Your task to perform on an android device: turn off notifications settings in the gmail app Image 0: 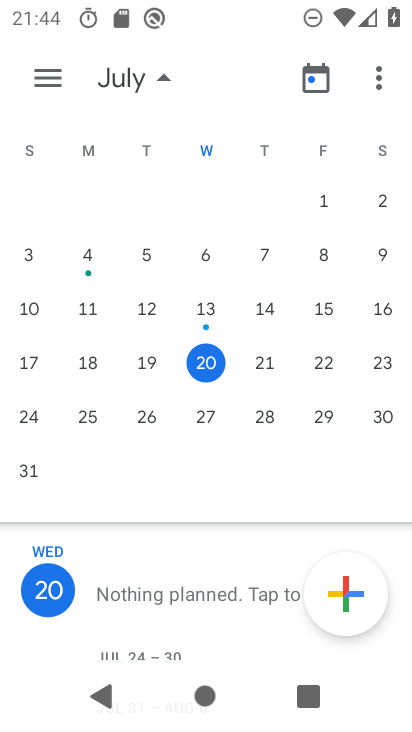
Step 0: press home button
Your task to perform on an android device: turn off notifications settings in the gmail app Image 1: 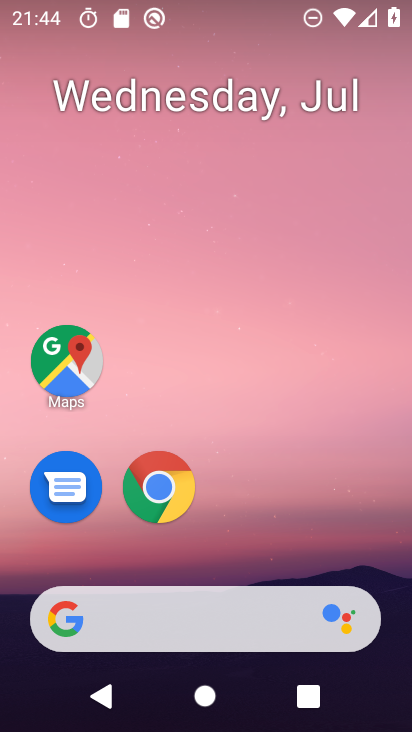
Step 1: drag from (334, 504) to (360, 80)
Your task to perform on an android device: turn off notifications settings in the gmail app Image 2: 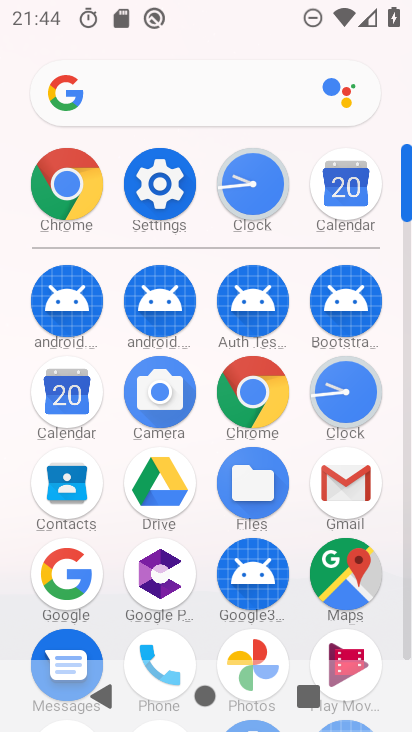
Step 2: click (350, 476)
Your task to perform on an android device: turn off notifications settings in the gmail app Image 3: 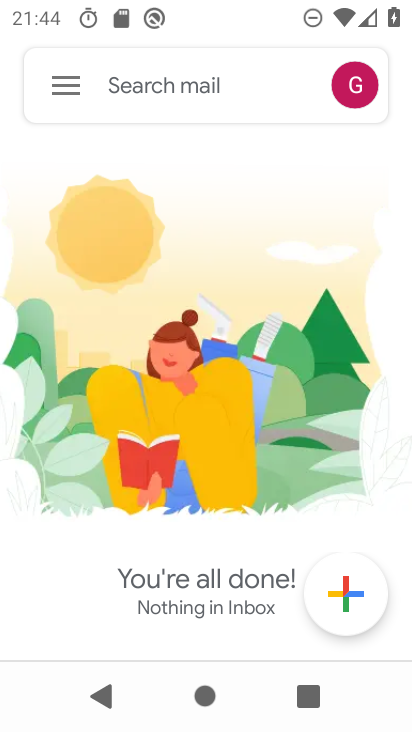
Step 3: click (64, 77)
Your task to perform on an android device: turn off notifications settings in the gmail app Image 4: 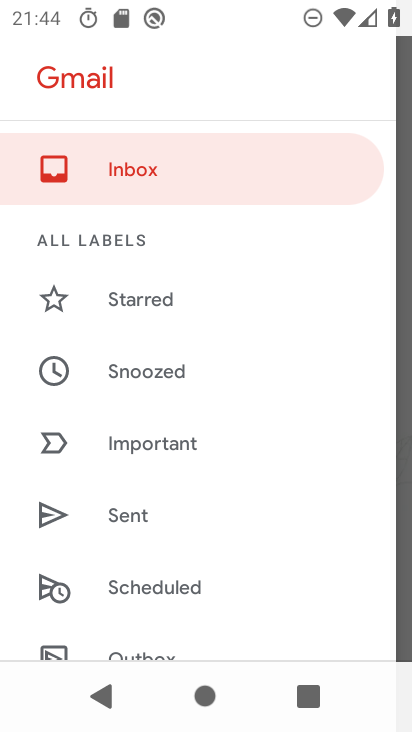
Step 4: drag from (300, 533) to (307, 478)
Your task to perform on an android device: turn off notifications settings in the gmail app Image 5: 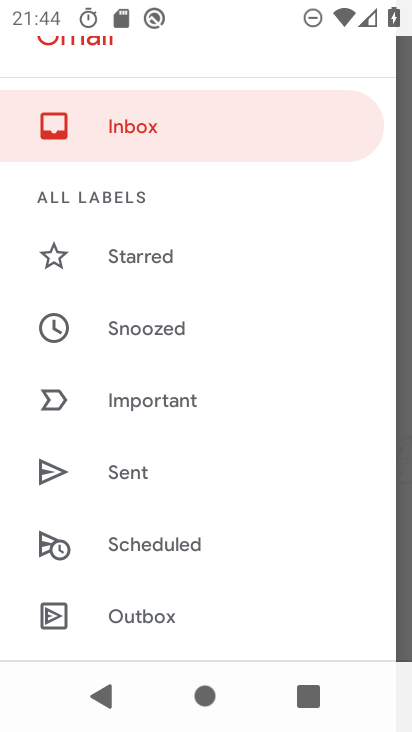
Step 5: drag from (306, 521) to (332, 249)
Your task to perform on an android device: turn off notifications settings in the gmail app Image 6: 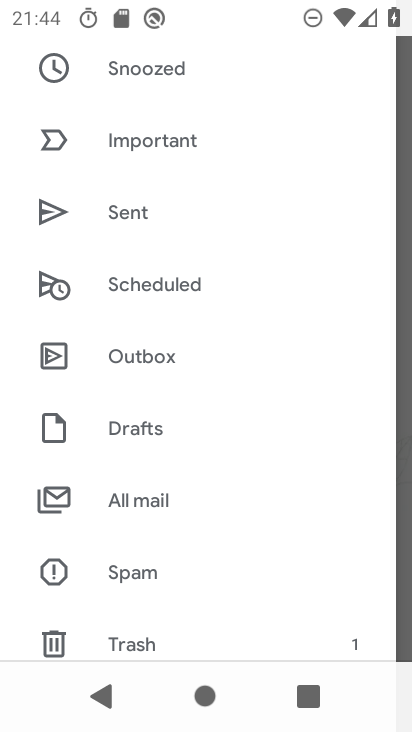
Step 6: drag from (309, 432) to (320, 327)
Your task to perform on an android device: turn off notifications settings in the gmail app Image 7: 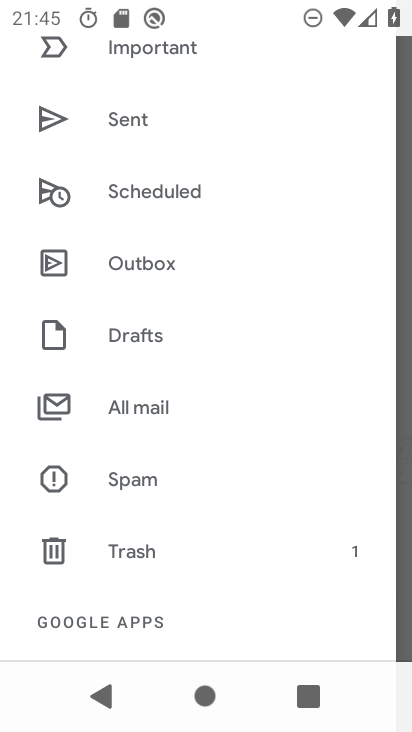
Step 7: drag from (288, 464) to (291, 316)
Your task to perform on an android device: turn off notifications settings in the gmail app Image 8: 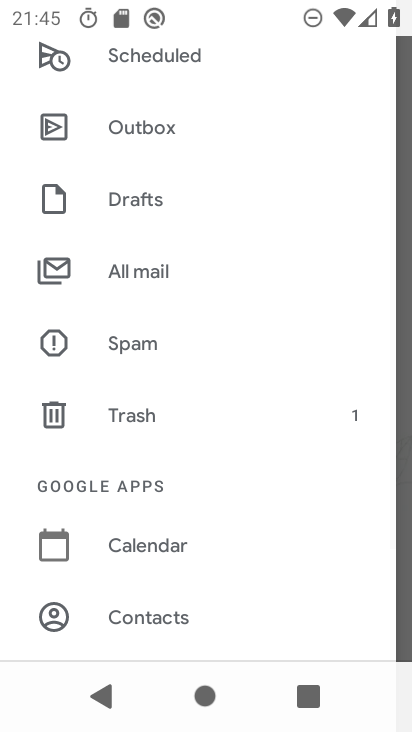
Step 8: drag from (265, 525) to (264, 348)
Your task to perform on an android device: turn off notifications settings in the gmail app Image 9: 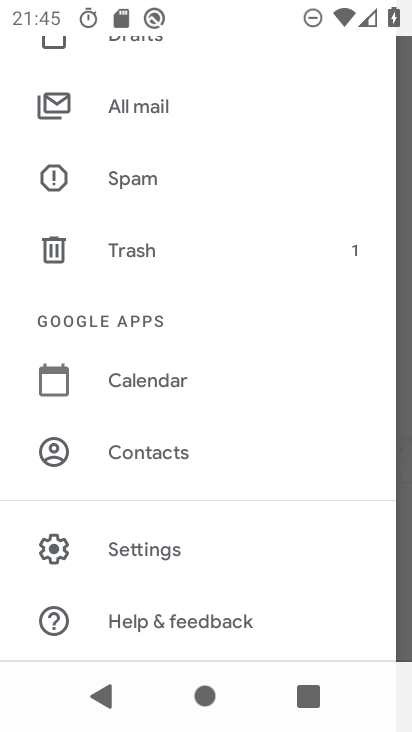
Step 9: click (173, 550)
Your task to perform on an android device: turn off notifications settings in the gmail app Image 10: 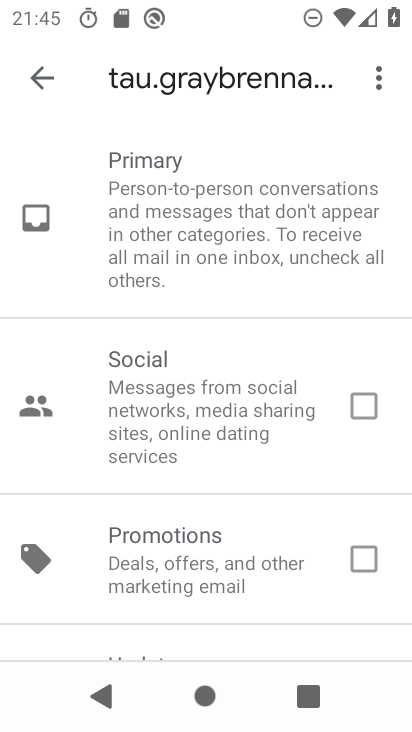
Step 10: press back button
Your task to perform on an android device: turn off notifications settings in the gmail app Image 11: 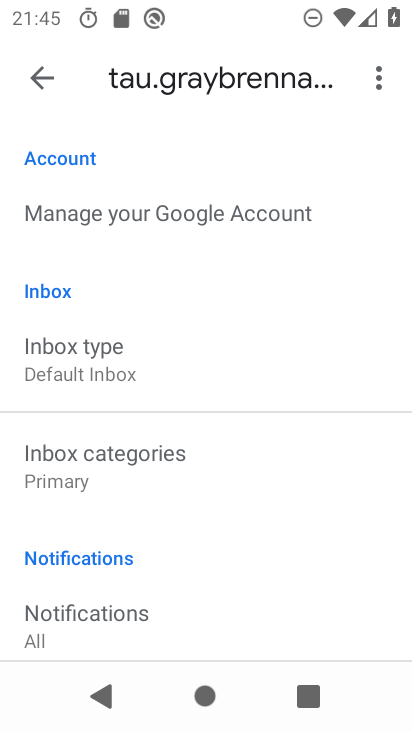
Step 11: drag from (358, 456) to (355, 381)
Your task to perform on an android device: turn off notifications settings in the gmail app Image 12: 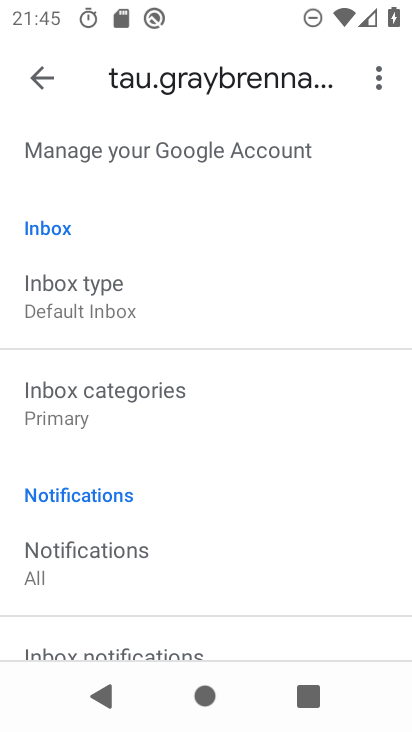
Step 12: drag from (344, 481) to (342, 369)
Your task to perform on an android device: turn off notifications settings in the gmail app Image 13: 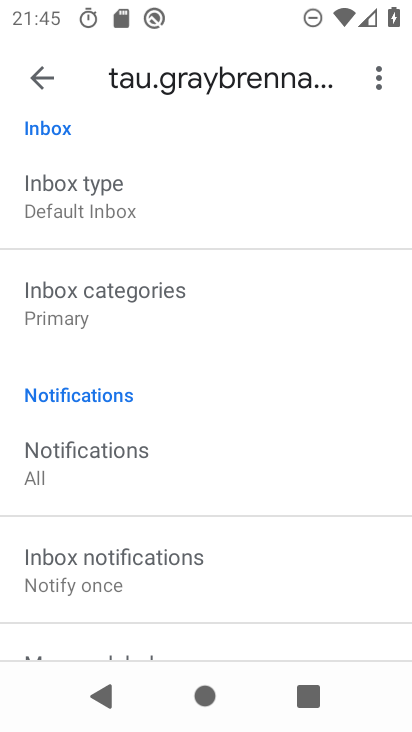
Step 13: drag from (348, 515) to (348, 407)
Your task to perform on an android device: turn off notifications settings in the gmail app Image 14: 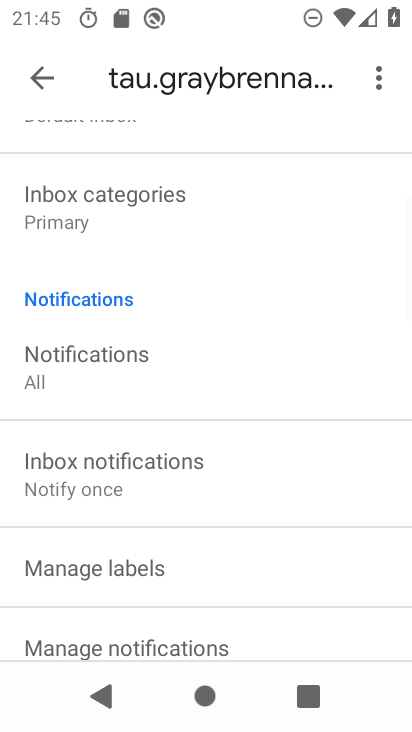
Step 14: drag from (334, 500) to (335, 351)
Your task to perform on an android device: turn off notifications settings in the gmail app Image 15: 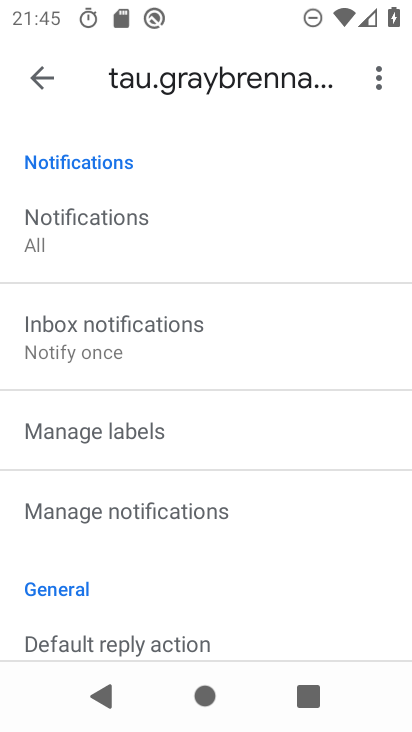
Step 15: drag from (328, 466) to (340, 355)
Your task to perform on an android device: turn off notifications settings in the gmail app Image 16: 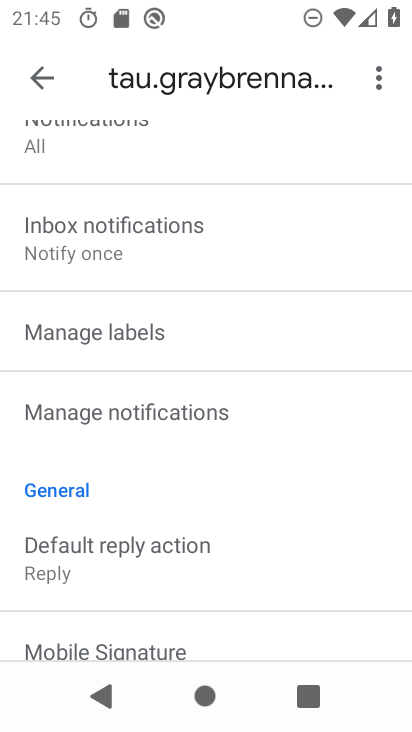
Step 16: click (252, 408)
Your task to perform on an android device: turn off notifications settings in the gmail app Image 17: 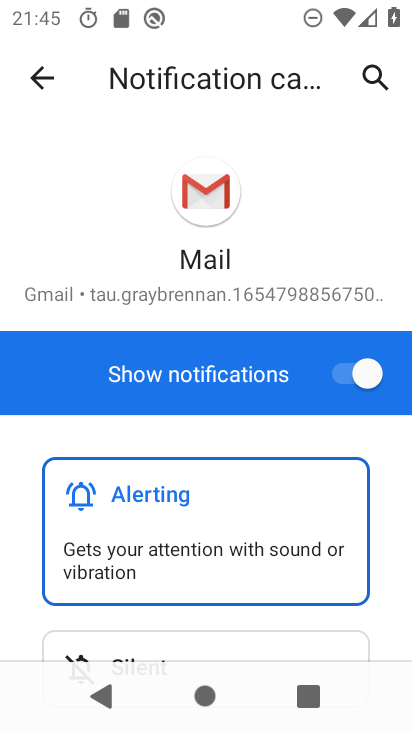
Step 17: click (371, 378)
Your task to perform on an android device: turn off notifications settings in the gmail app Image 18: 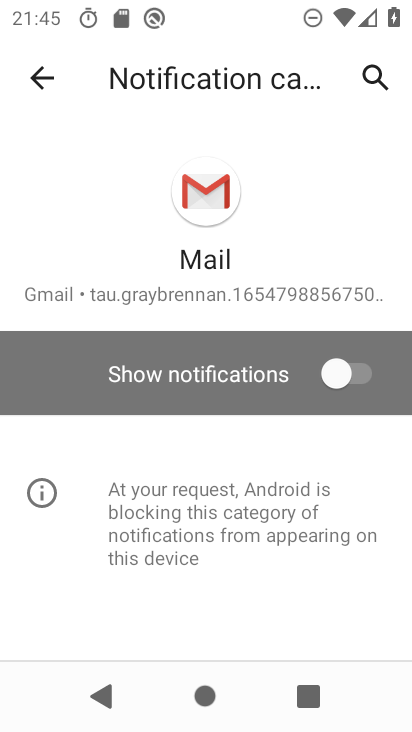
Step 18: task complete